Your task to perform on an android device: When is my next meeting? Image 0: 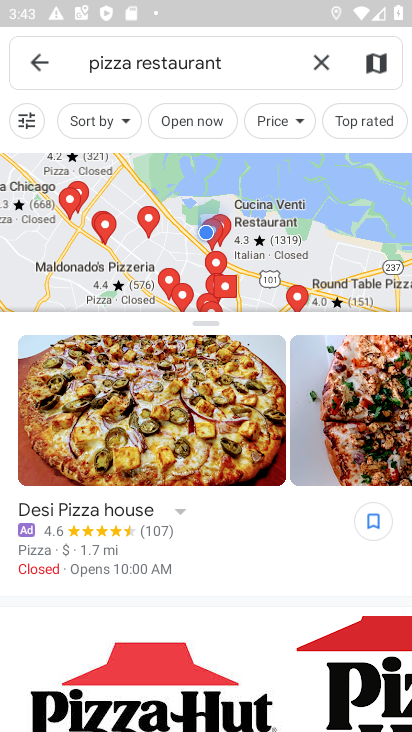
Step 0: task complete